Your task to perform on an android device: What's the weather going to be this weekend? Image 0: 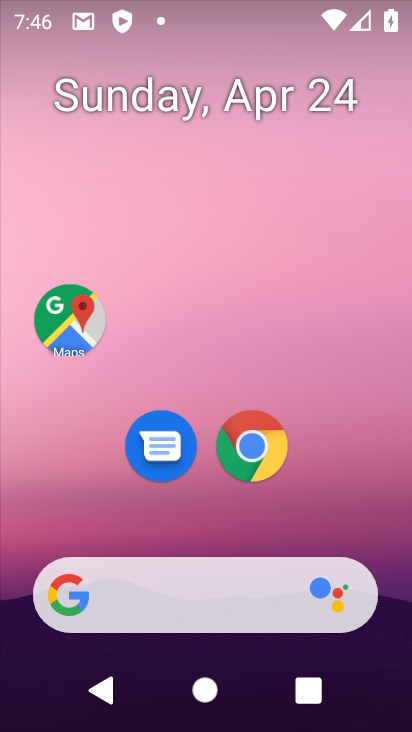
Step 0: drag from (285, 538) to (277, 57)
Your task to perform on an android device: What's the weather going to be this weekend? Image 1: 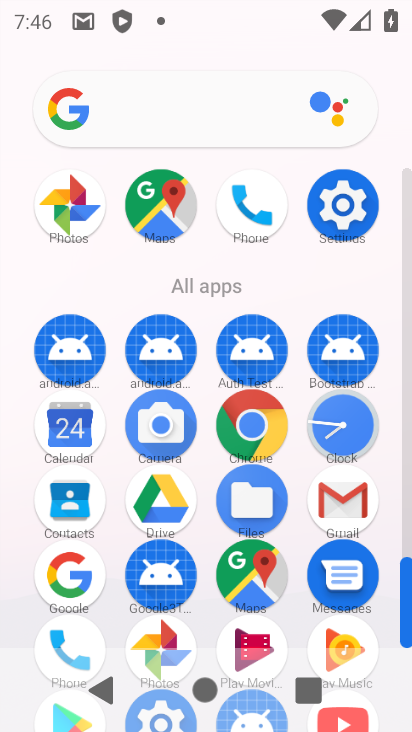
Step 1: drag from (195, 323) to (203, 206)
Your task to perform on an android device: What's the weather going to be this weekend? Image 2: 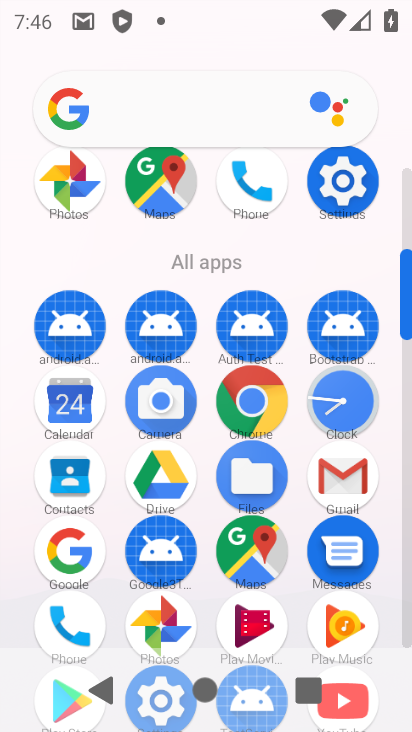
Step 2: click (73, 568)
Your task to perform on an android device: What's the weather going to be this weekend? Image 3: 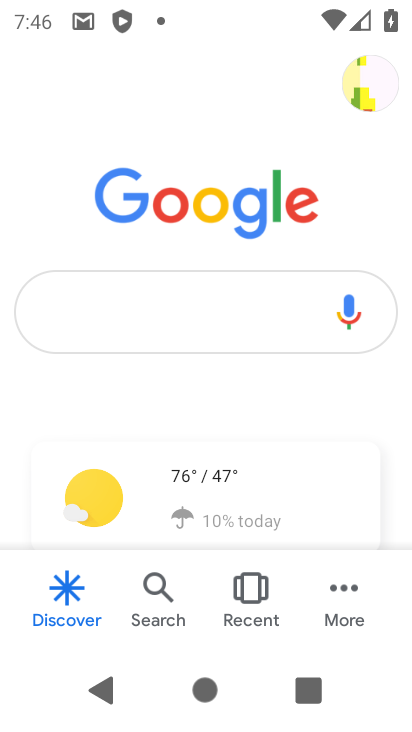
Step 3: click (228, 324)
Your task to perform on an android device: What's the weather going to be this weekend? Image 4: 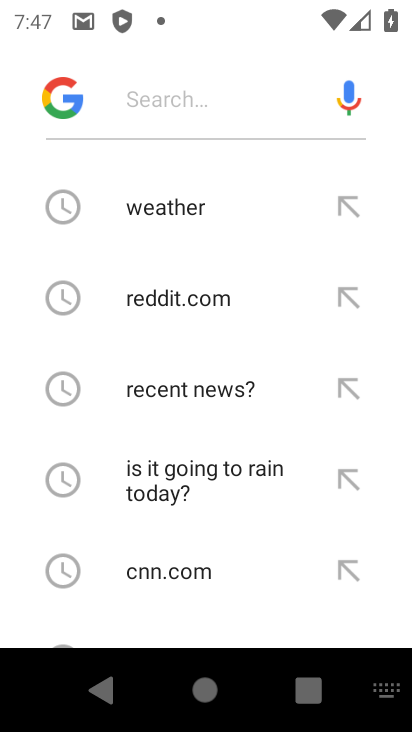
Step 4: type "saturday weather"
Your task to perform on an android device: What's the weather going to be this weekend? Image 5: 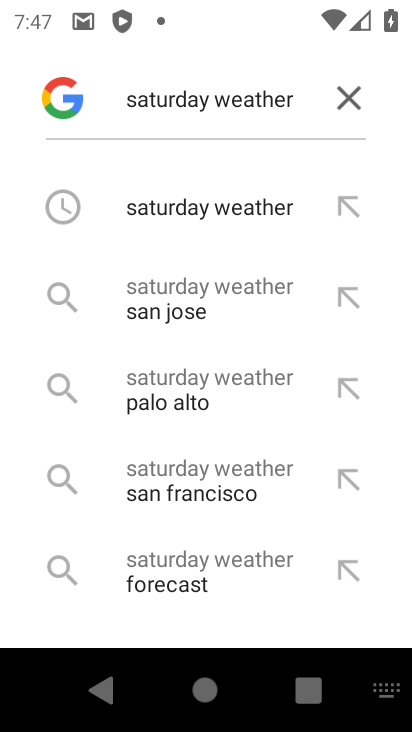
Step 5: click (244, 214)
Your task to perform on an android device: What's the weather going to be this weekend? Image 6: 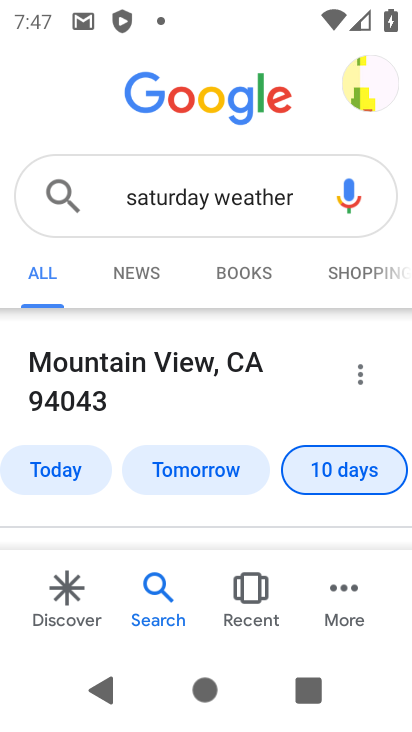
Step 6: task complete